Your task to perform on an android device: Search for "panasonic triple a" on walmart, select the first entry, add it to the cart, then select checkout. Image 0: 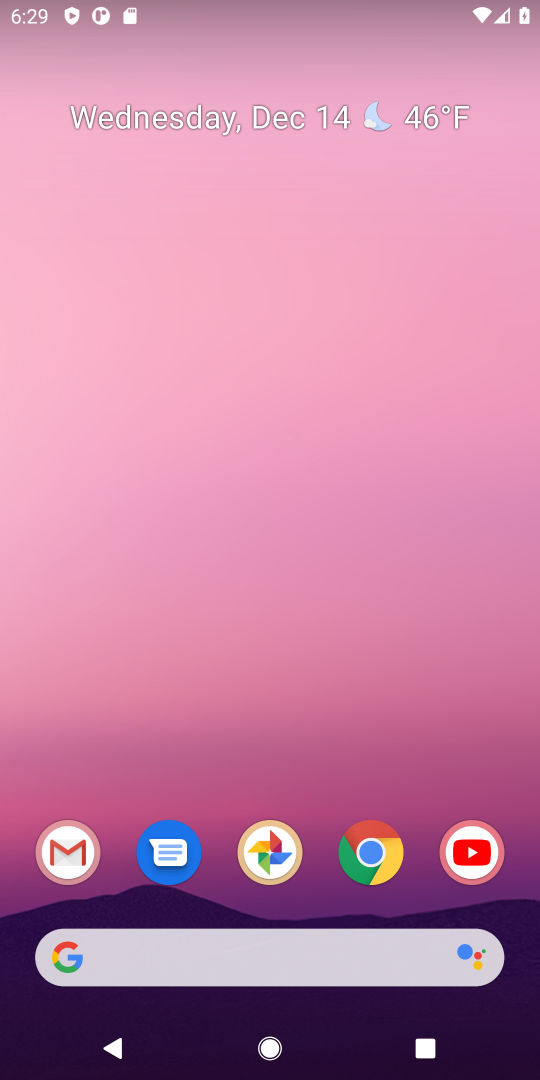
Step 0: click (380, 853)
Your task to perform on an android device: Search for "panasonic triple a" on walmart, select the first entry, add it to the cart, then select checkout. Image 1: 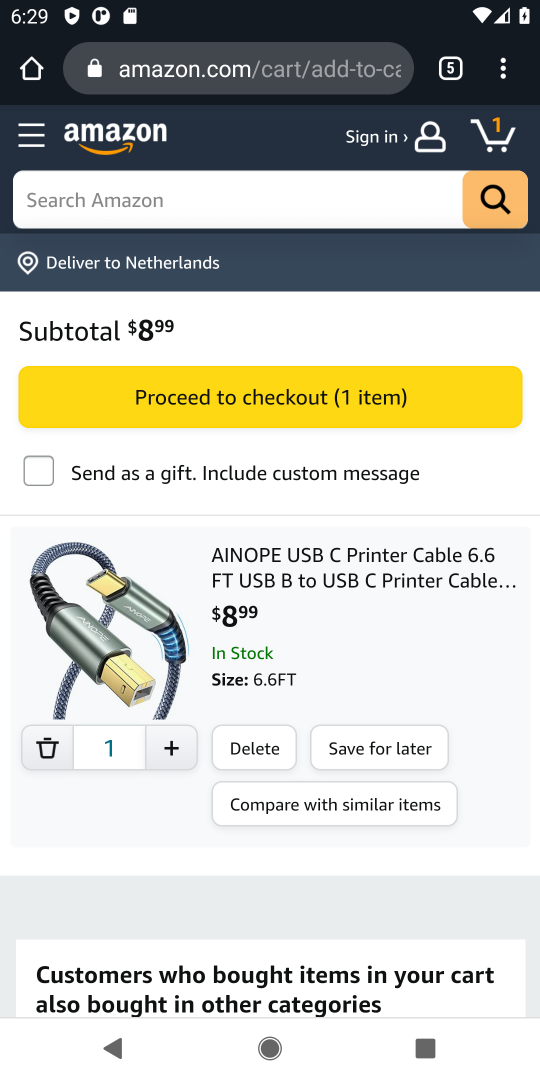
Step 1: click (458, 64)
Your task to perform on an android device: Search for "panasonic triple a" on walmart, select the first entry, add it to the cart, then select checkout. Image 2: 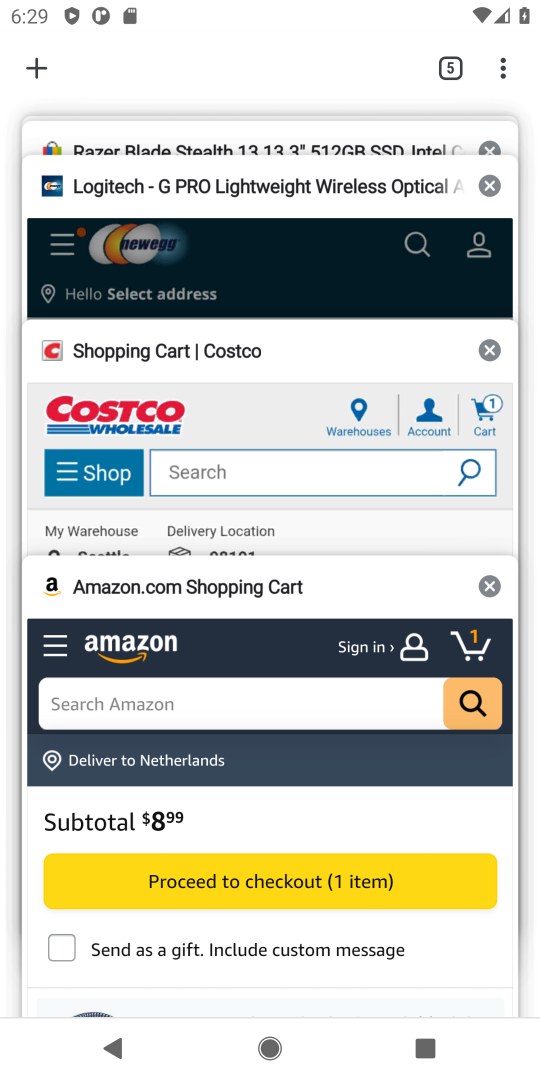
Step 2: click (34, 57)
Your task to perform on an android device: Search for "panasonic triple a" on walmart, select the first entry, add it to the cart, then select checkout. Image 3: 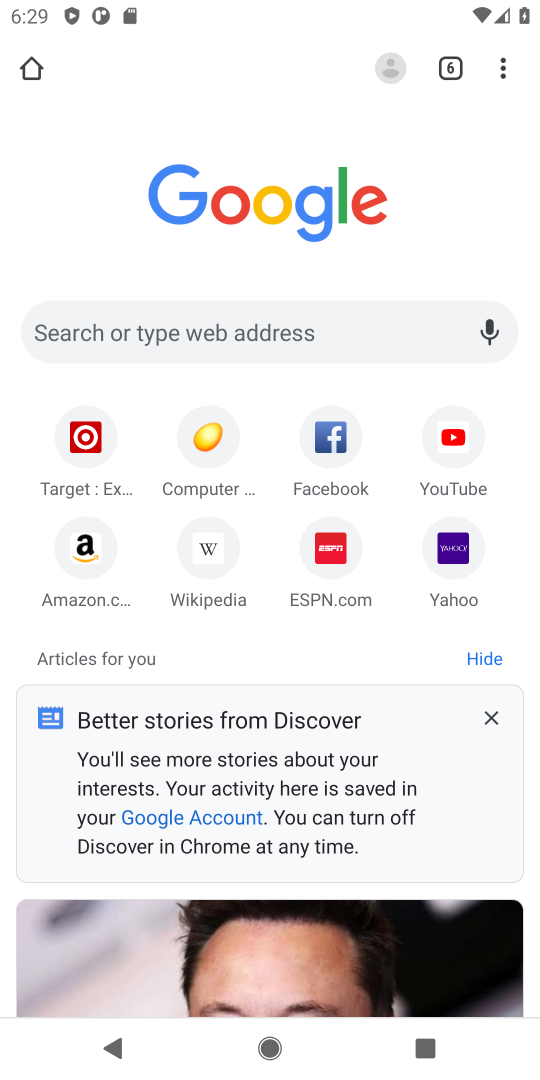
Step 3: click (183, 313)
Your task to perform on an android device: Search for "panasonic triple a" on walmart, select the first entry, add it to the cart, then select checkout. Image 4: 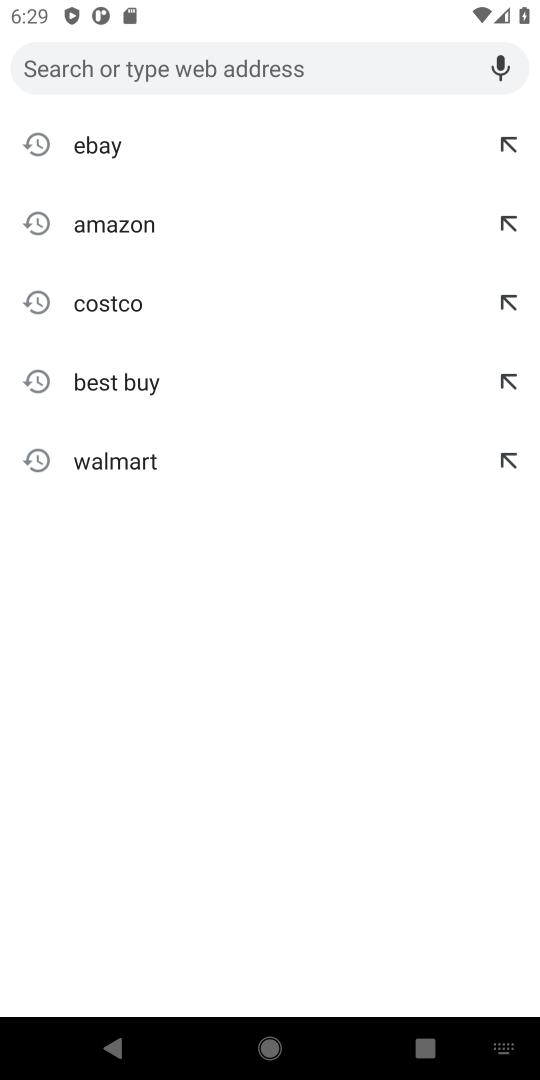
Step 4: click (144, 457)
Your task to perform on an android device: Search for "panasonic triple a" on walmart, select the first entry, add it to the cart, then select checkout. Image 5: 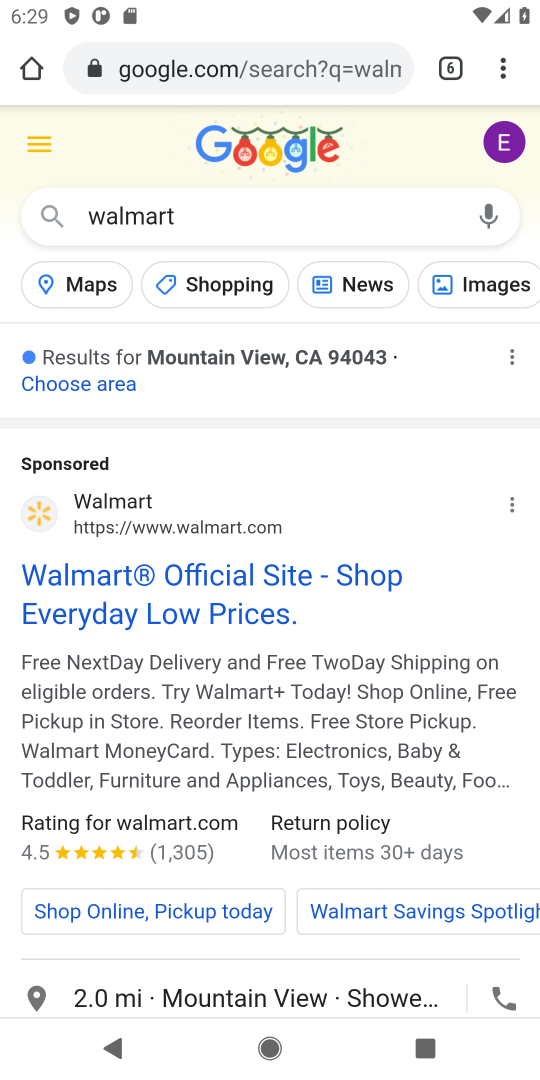
Step 5: click (112, 570)
Your task to perform on an android device: Search for "panasonic triple a" on walmart, select the first entry, add it to the cart, then select checkout. Image 6: 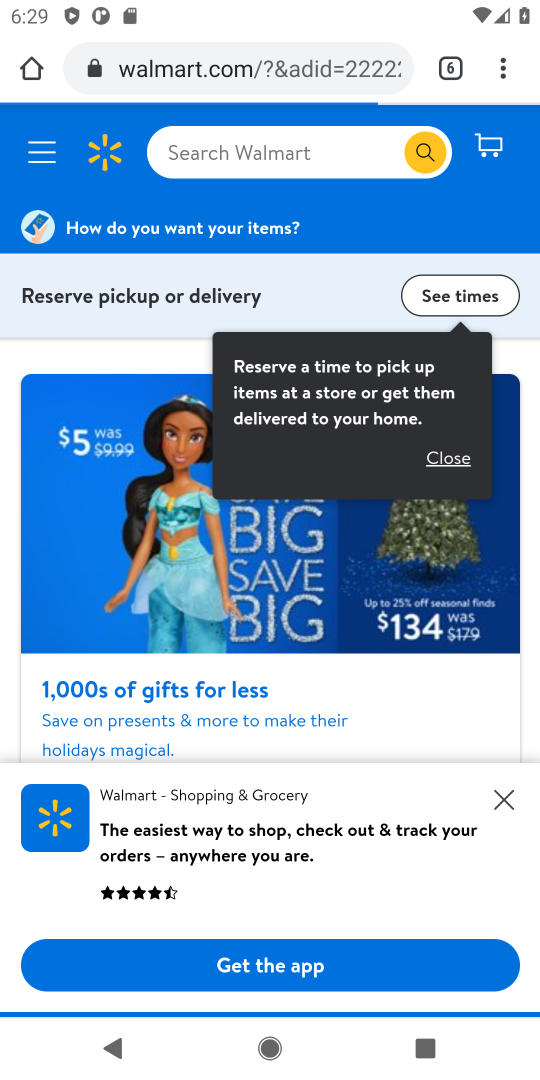
Step 6: click (251, 152)
Your task to perform on an android device: Search for "panasonic triple a" on walmart, select the first entry, add it to the cart, then select checkout. Image 7: 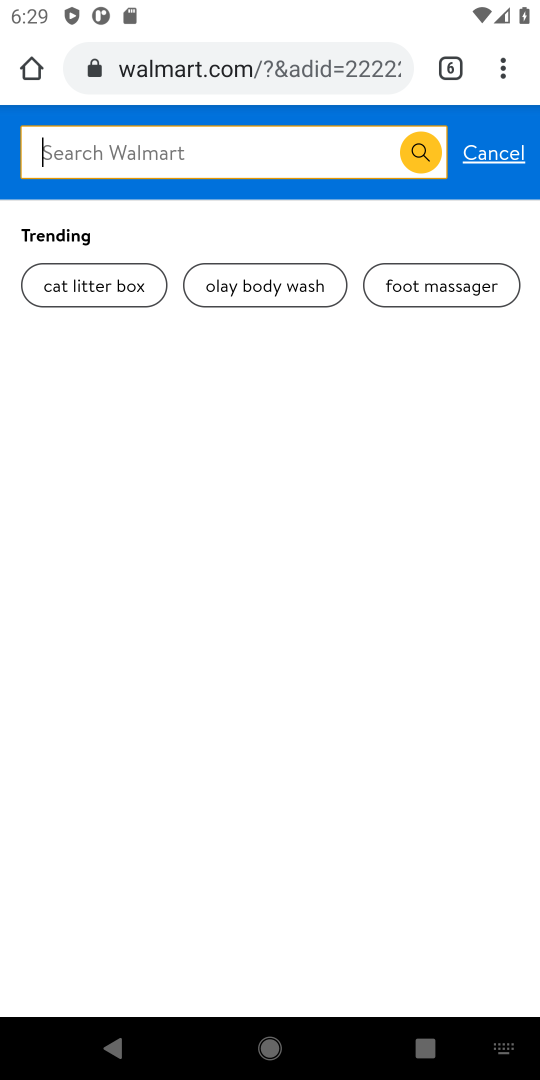
Step 7: type "panasonic triple a"
Your task to perform on an android device: Search for "panasonic triple a" on walmart, select the first entry, add it to the cart, then select checkout. Image 8: 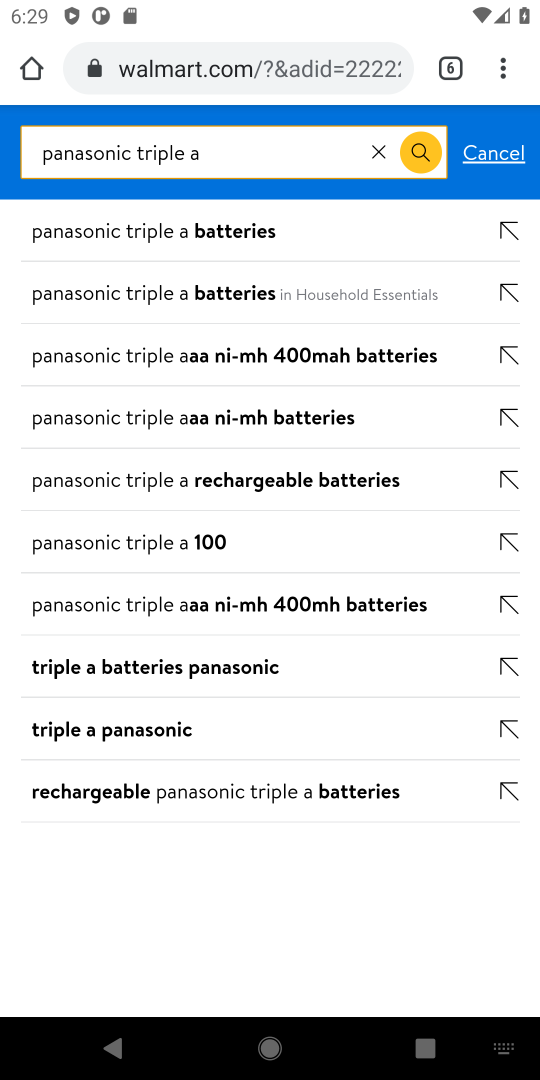
Step 8: click (160, 216)
Your task to perform on an android device: Search for "panasonic triple a" on walmart, select the first entry, add it to the cart, then select checkout. Image 9: 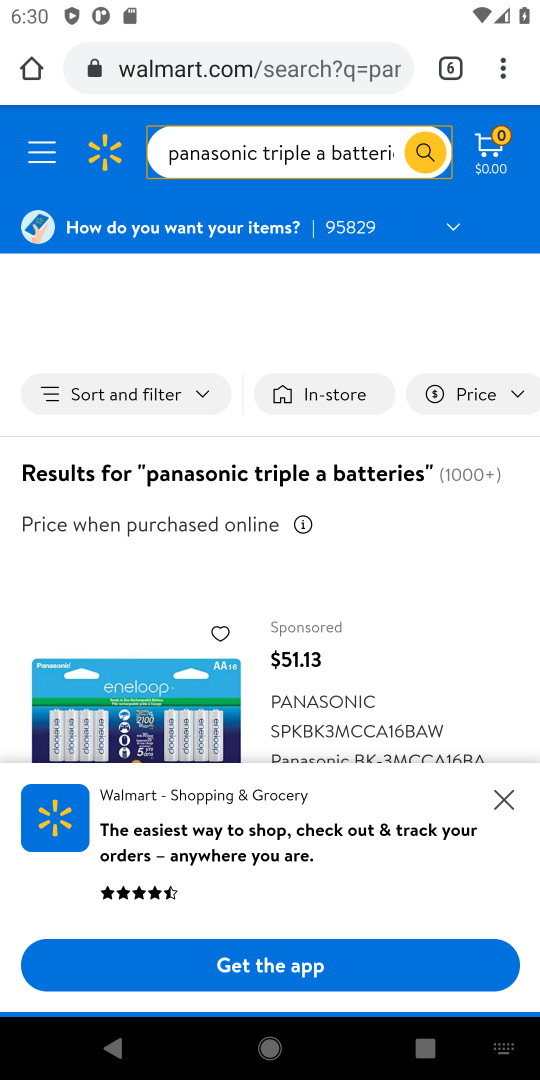
Step 9: click (507, 797)
Your task to perform on an android device: Search for "panasonic triple a" on walmart, select the first entry, add it to the cart, then select checkout. Image 10: 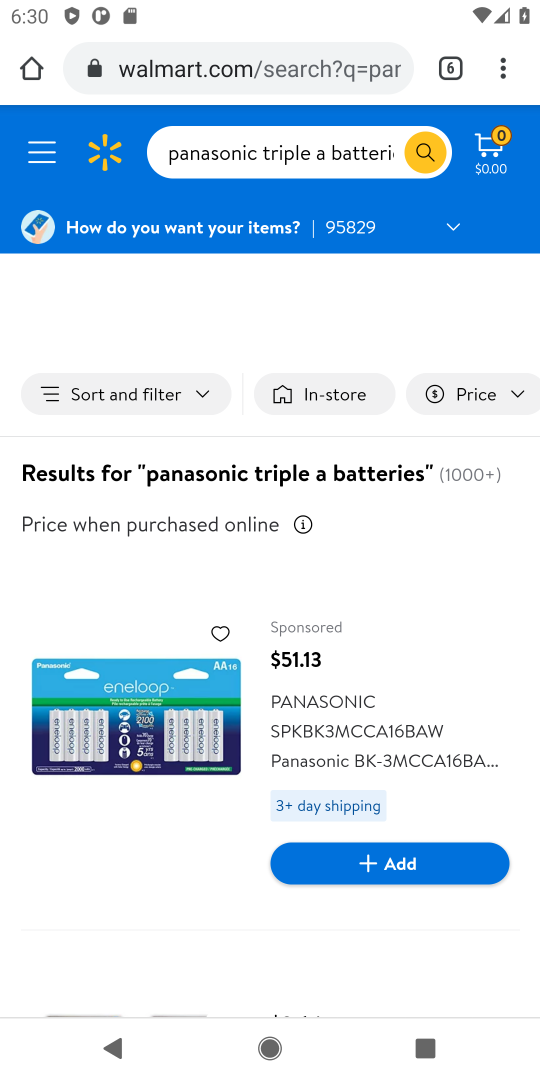
Step 10: click (398, 872)
Your task to perform on an android device: Search for "panasonic triple a" on walmart, select the first entry, add it to the cart, then select checkout. Image 11: 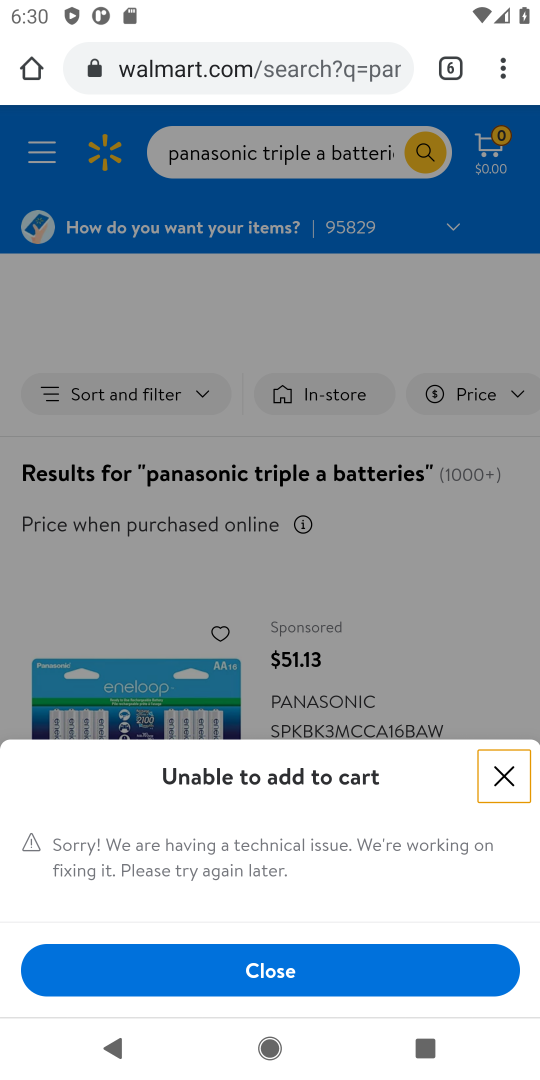
Step 11: click (506, 781)
Your task to perform on an android device: Search for "panasonic triple a" on walmart, select the first entry, add it to the cart, then select checkout. Image 12: 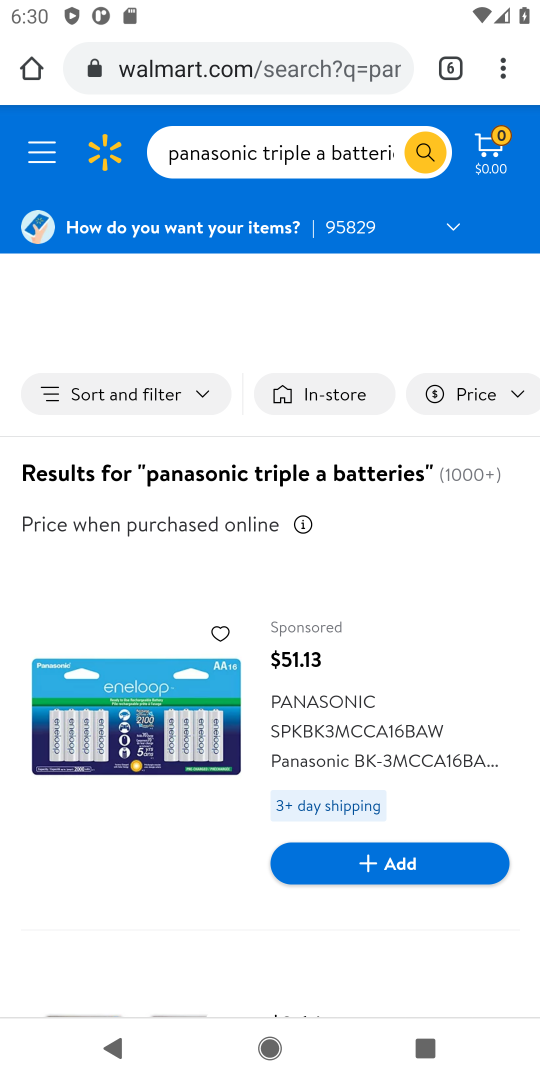
Step 12: drag from (194, 863) to (247, 210)
Your task to perform on an android device: Search for "panasonic triple a" on walmart, select the first entry, add it to the cart, then select checkout. Image 13: 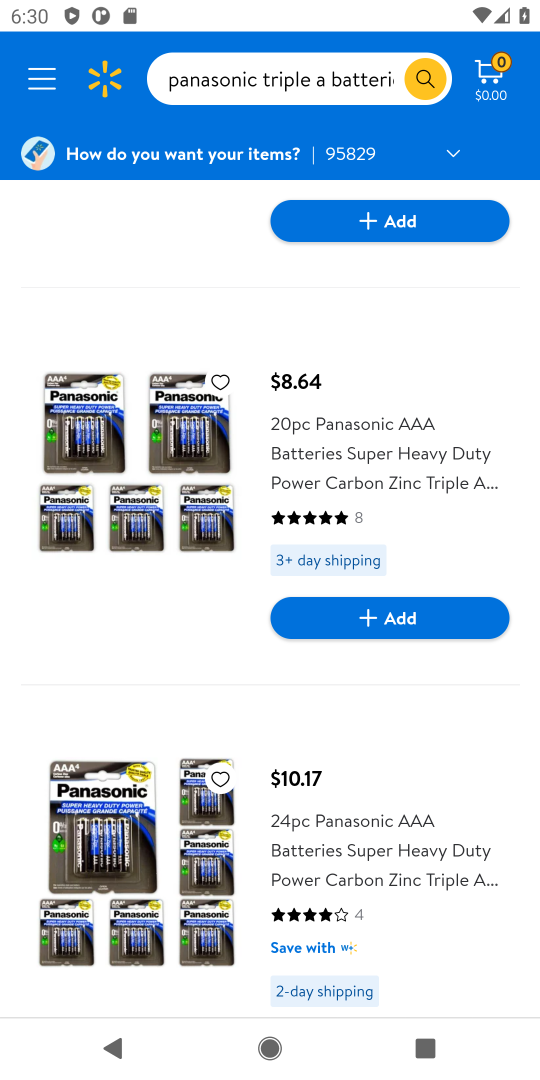
Step 13: drag from (367, 808) to (404, 509)
Your task to perform on an android device: Search for "panasonic triple a" on walmart, select the first entry, add it to the cart, then select checkout. Image 14: 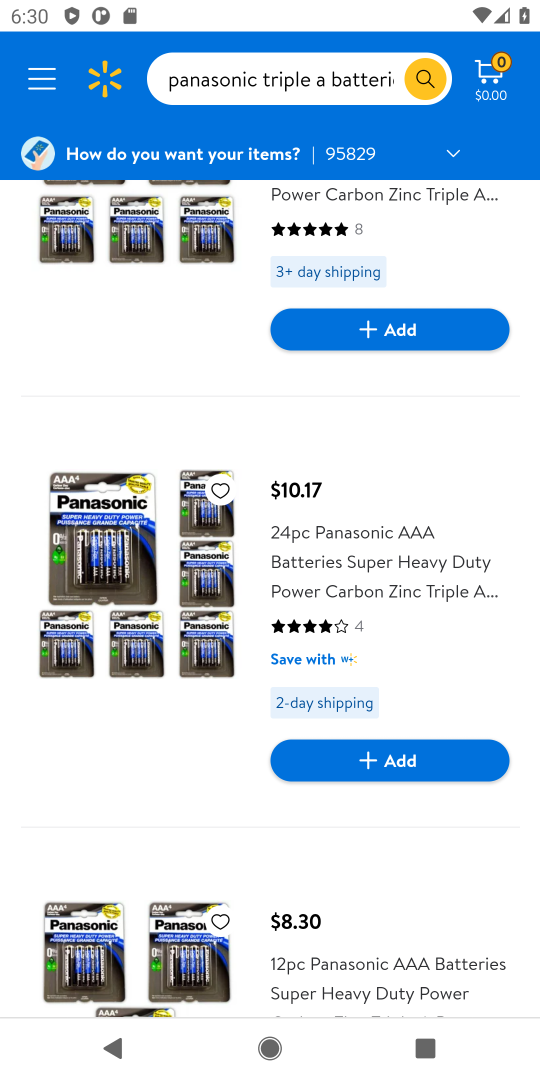
Step 14: click (370, 760)
Your task to perform on an android device: Search for "panasonic triple a" on walmart, select the first entry, add it to the cart, then select checkout. Image 15: 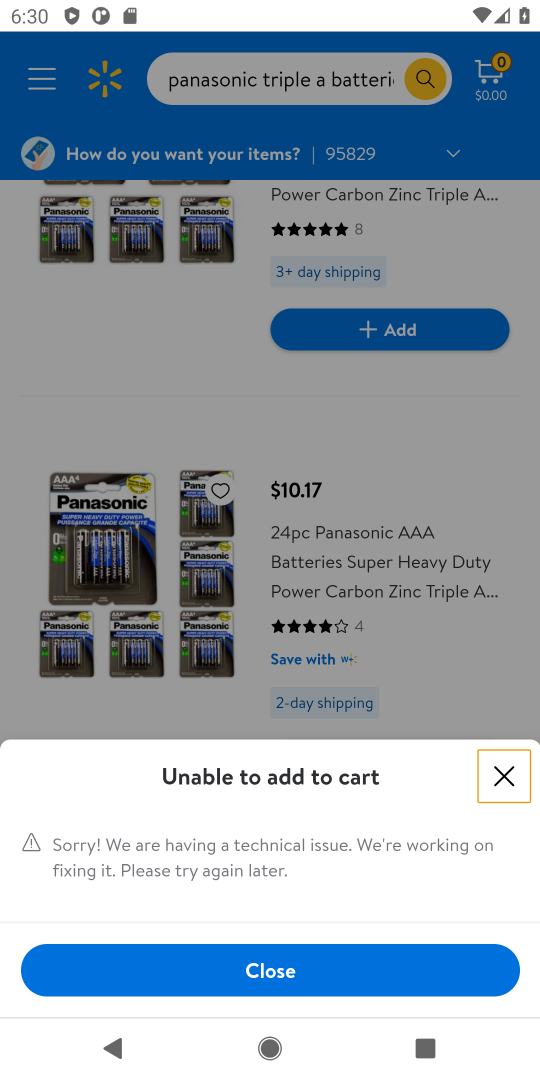
Step 15: task complete